Your task to perform on an android device: Open ESPN.com Image 0: 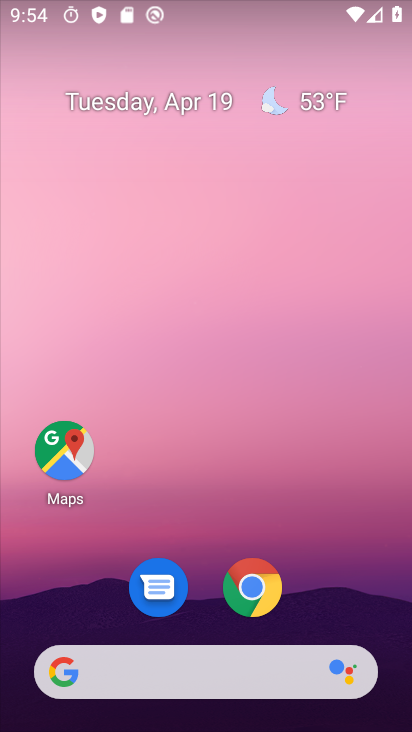
Step 0: drag from (327, 626) to (410, 25)
Your task to perform on an android device: Open ESPN.com Image 1: 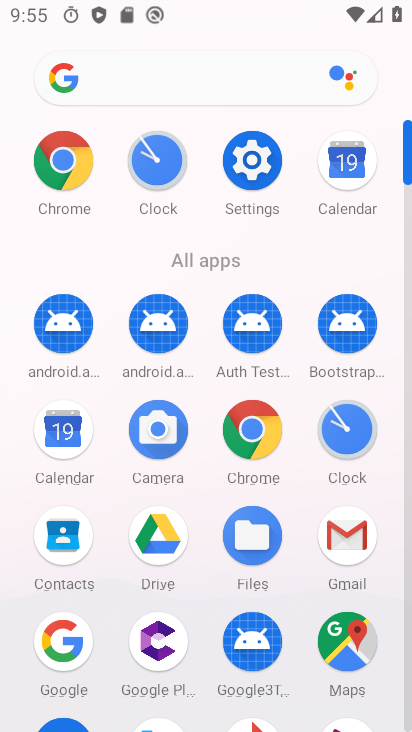
Step 1: click (82, 171)
Your task to perform on an android device: Open ESPN.com Image 2: 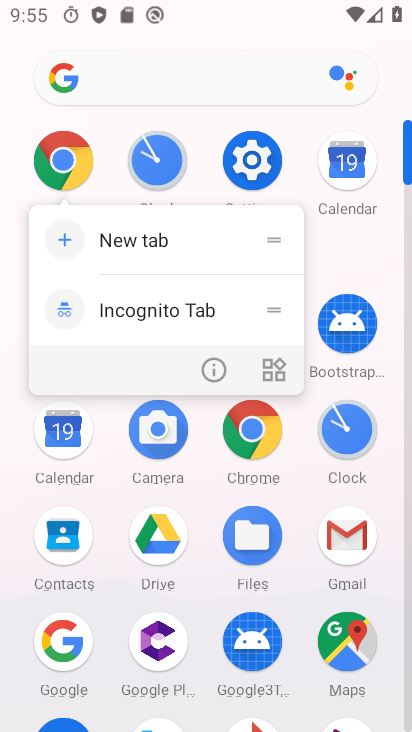
Step 2: click (82, 170)
Your task to perform on an android device: Open ESPN.com Image 3: 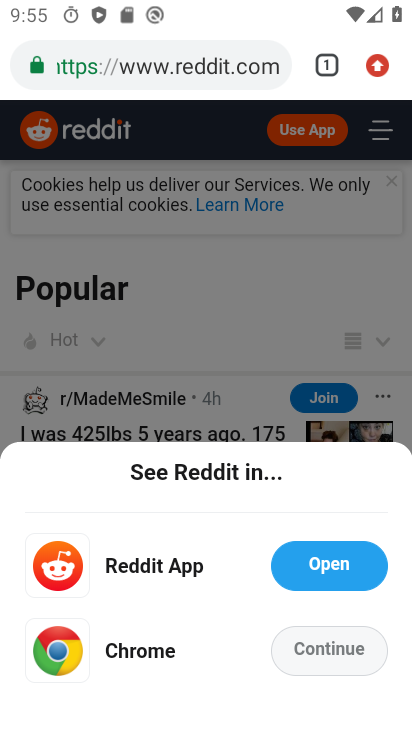
Step 3: click (227, 65)
Your task to perform on an android device: Open ESPN.com Image 4: 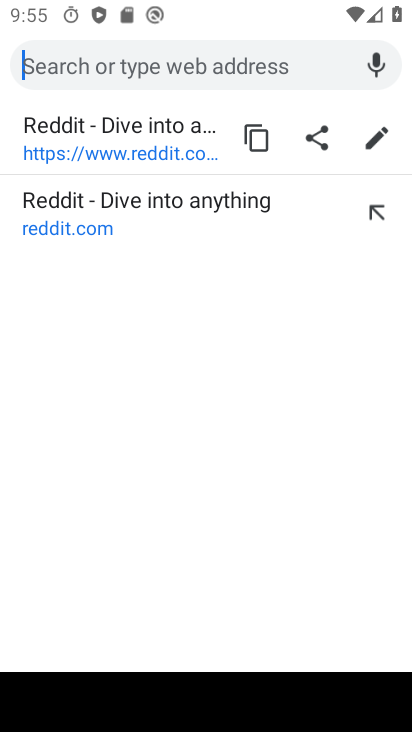
Step 4: type "espn"
Your task to perform on an android device: Open ESPN.com Image 5: 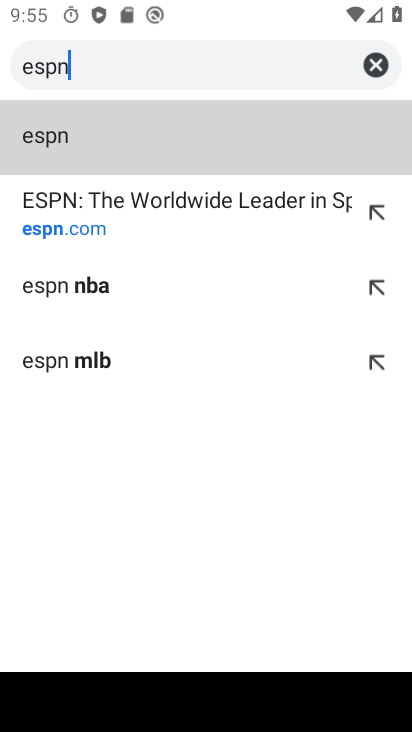
Step 5: click (85, 147)
Your task to perform on an android device: Open ESPN.com Image 6: 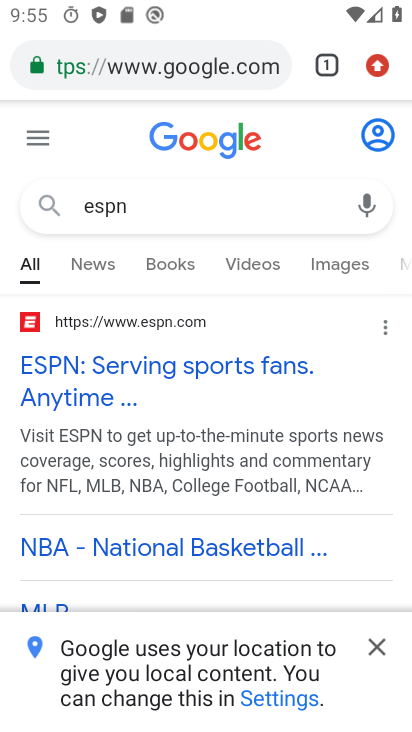
Step 6: click (142, 376)
Your task to perform on an android device: Open ESPN.com Image 7: 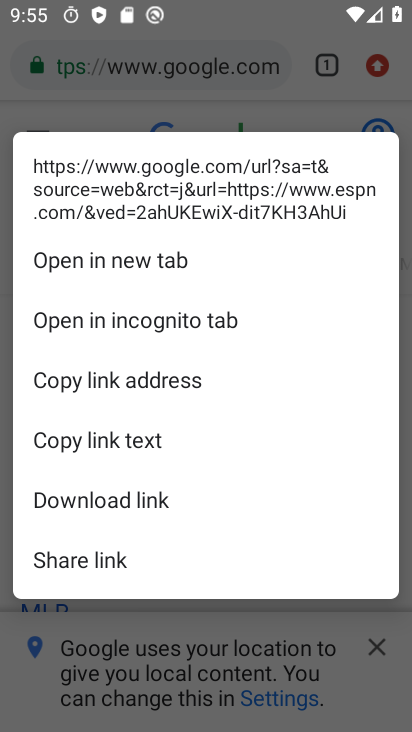
Step 7: task complete